Your task to perform on an android device: Search for pizza restaurants on Maps Image 0: 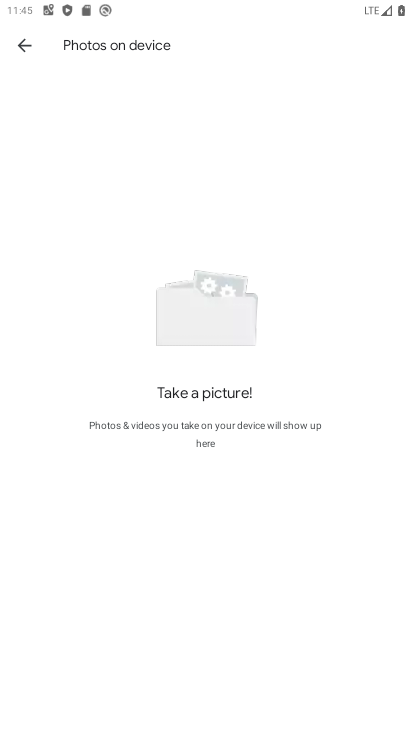
Step 0: press home button
Your task to perform on an android device: Search for pizza restaurants on Maps Image 1: 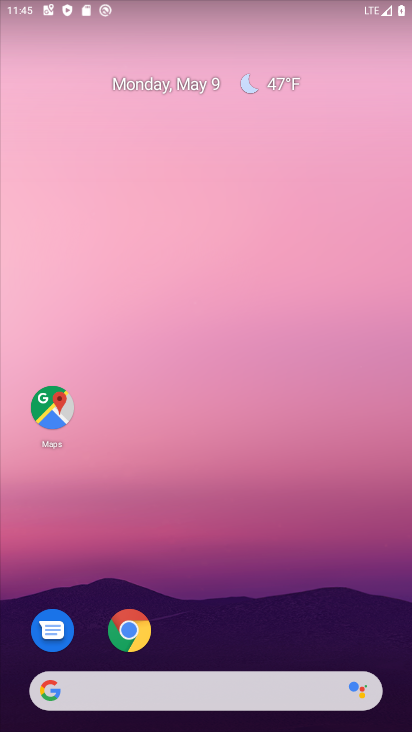
Step 1: click (55, 414)
Your task to perform on an android device: Search for pizza restaurants on Maps Image 2: 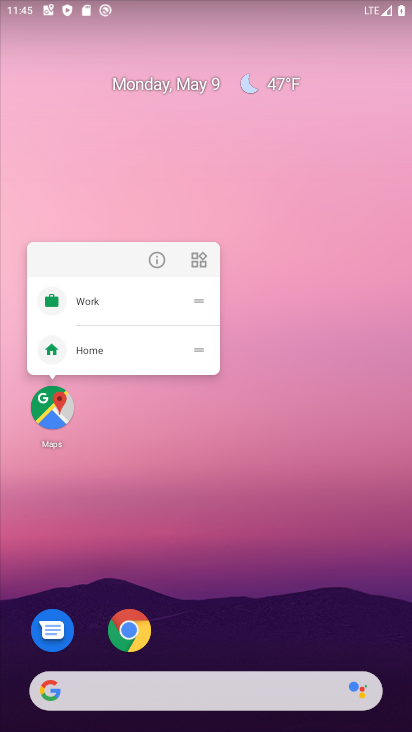
Step 2: click (55, 414)
Your task to perform on an android device: Search for pizza restaurants on Maps Image 3: 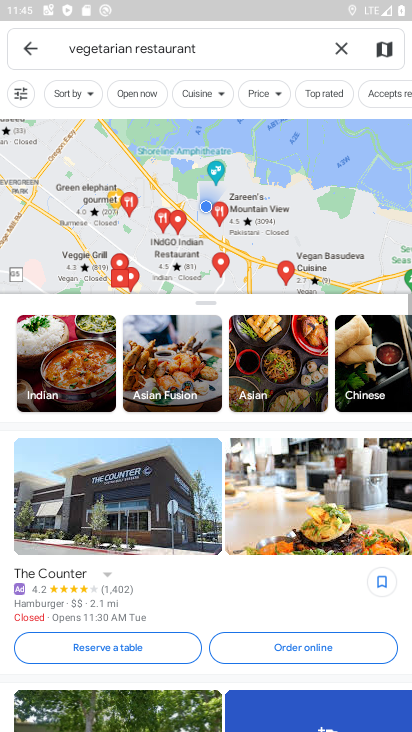
Step 3: click (339, 46)
Your task to perform on an android device: Search for pizza restaurants on Maps Image 4: 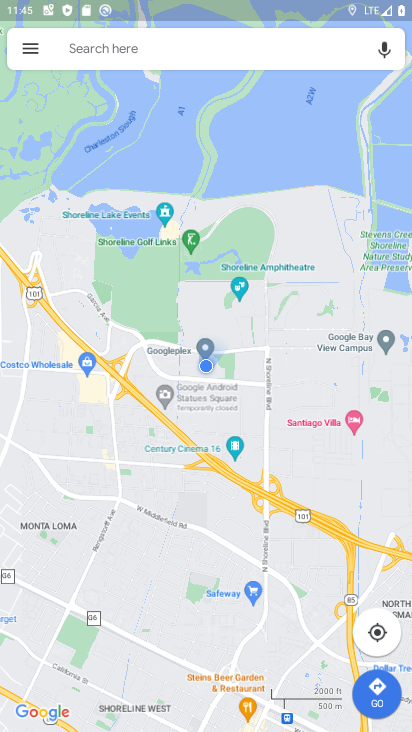
Step 4: click (217, 52)
Your task to perform on an android device: Search for pizza restaurants on Maps Image 5: 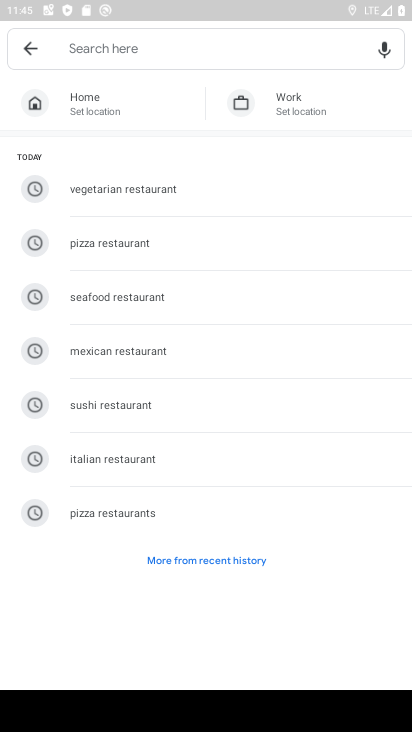
Step 5: click (139, 246)
Your task to perform on an android device: Search for pizza restaurants on Maps Image 6: 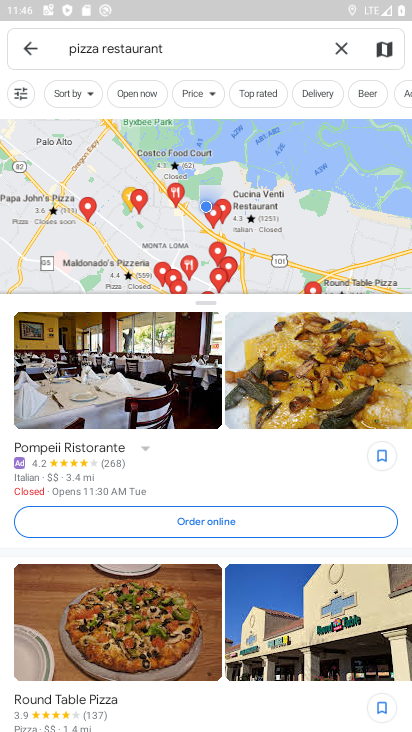
Step 6: task complete